Your task to perform on an android device: Open calendar and show me the fourth week of next month Image 0: 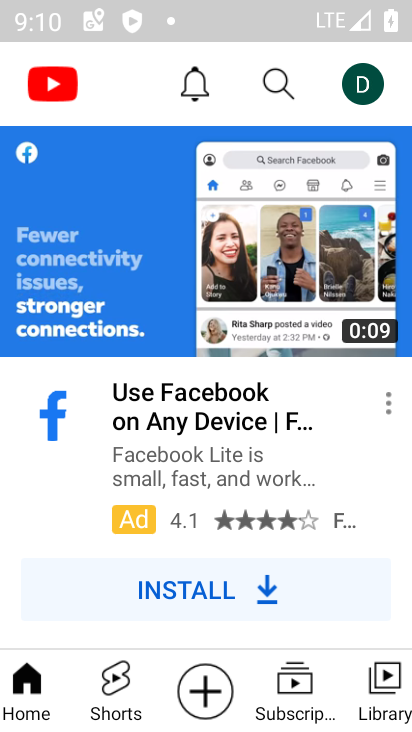
Step 0: press home button
Your task to perform on an android device: Open calendar and show me the fourth week of next month Image 1: 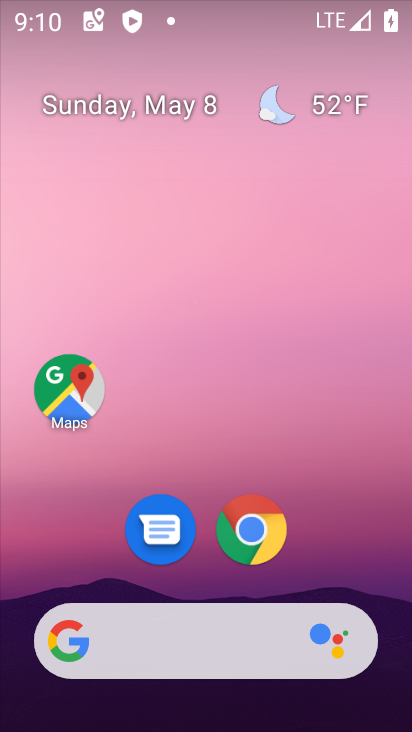
Step 1: drag from (385, 550) to (356, 74)
Your task to perform on an android device: Open calendar and show me the fourth week of next month Image 2: 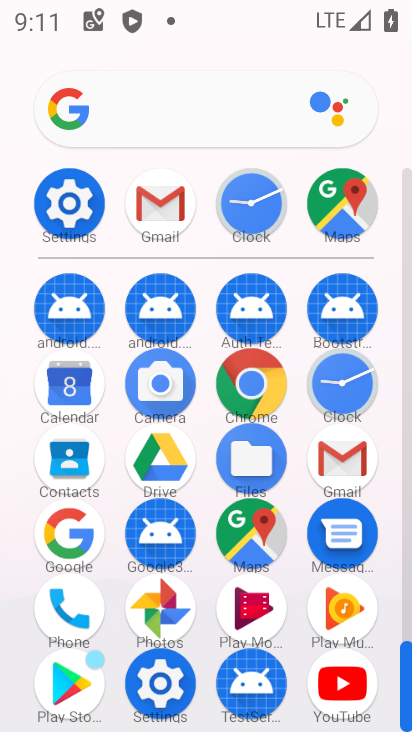
Step 2: click (59, 397)
Your task to perform on an android device: Open calendar and show me the fourth week of next month Image 3: 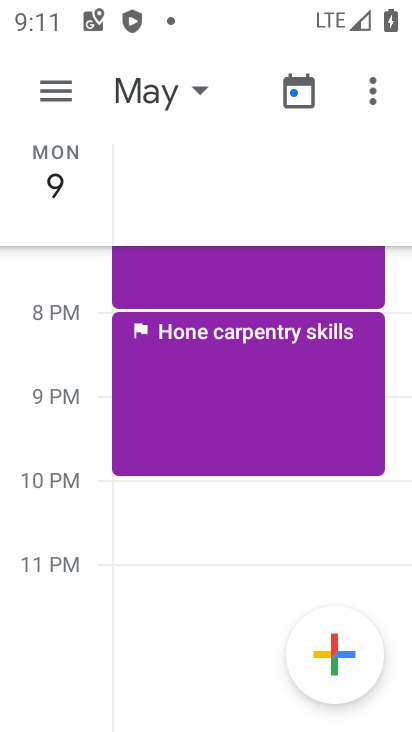
Step 3: click (168, 93)
Your task to perform on an android device: Open calendar and show me the fourth week of next month Image 4: 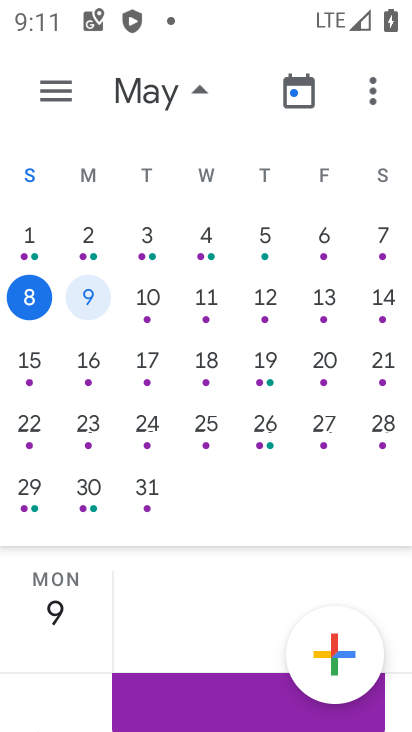
Step 4: click (32, 431)
Your task to perform on an android device: Open calendar and show me the fourth week of next month Image 5: 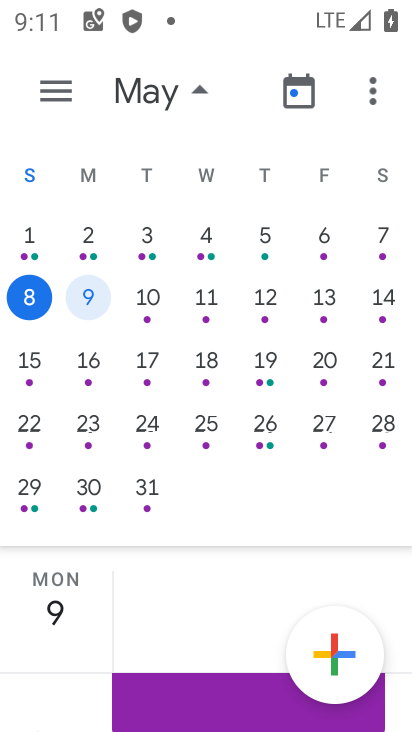
Step 5: click (41, 431)
Your task to perform on an android device: Open calendar and show me the fourth week of next month Image 6: 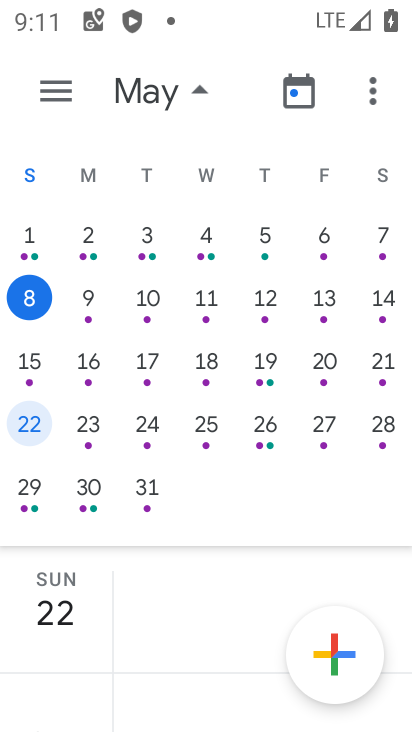
Step 6: task complete